Your task to perform on an android device: Open Reddit.com Image 0: 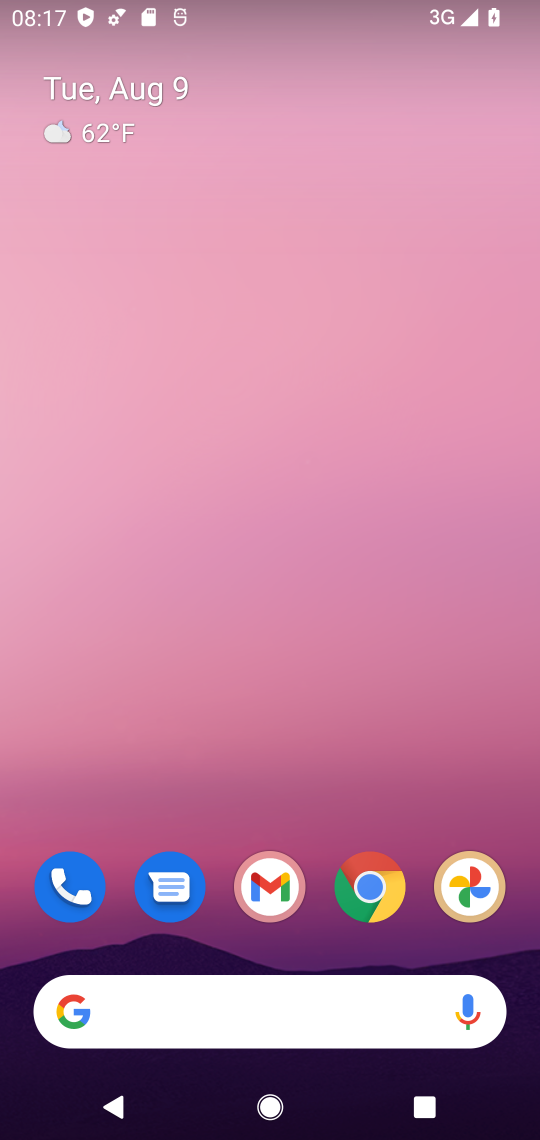
Step 0: click (250, 1012)
Your task to perform on an android device: Open Reddit.com Image 1: 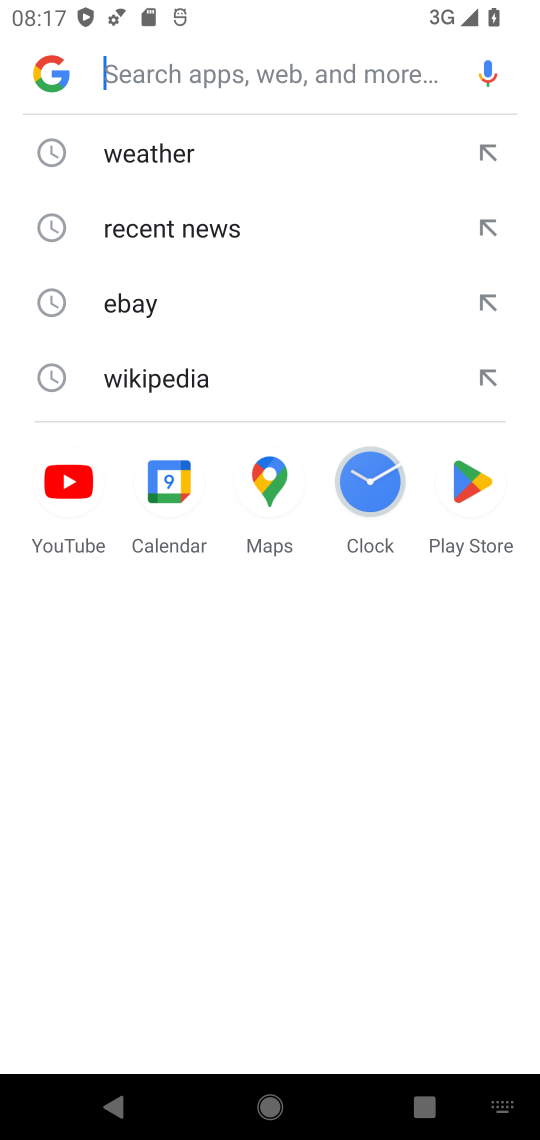
Step 1: type "reddit.com"
Your task to perform on an android device: Open Reddit.com Image 2: 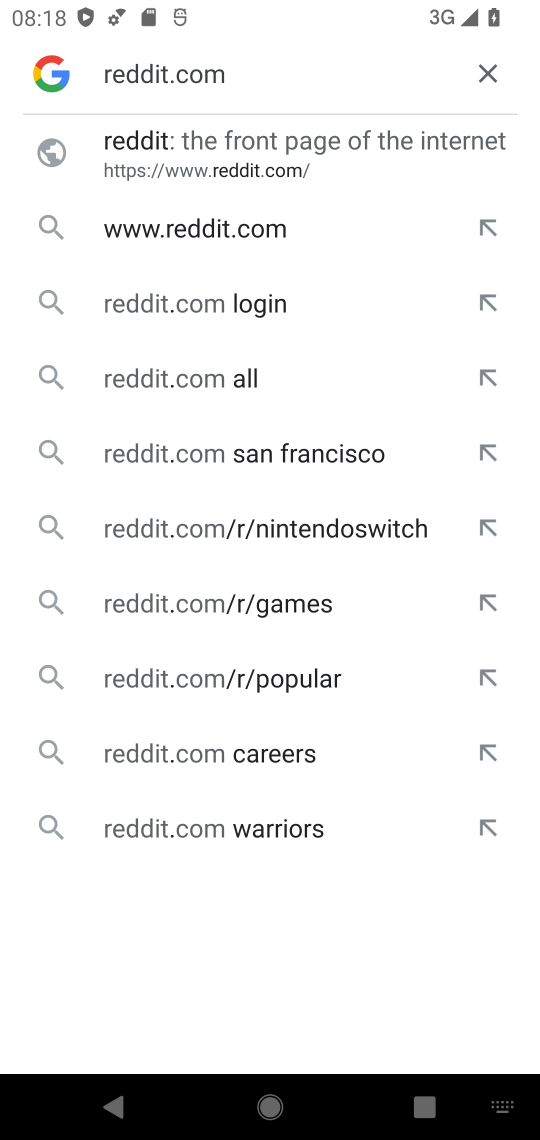
Step 2: click (290, 150)
Your task to perform on an android device: Open Reddit.com Image 3: 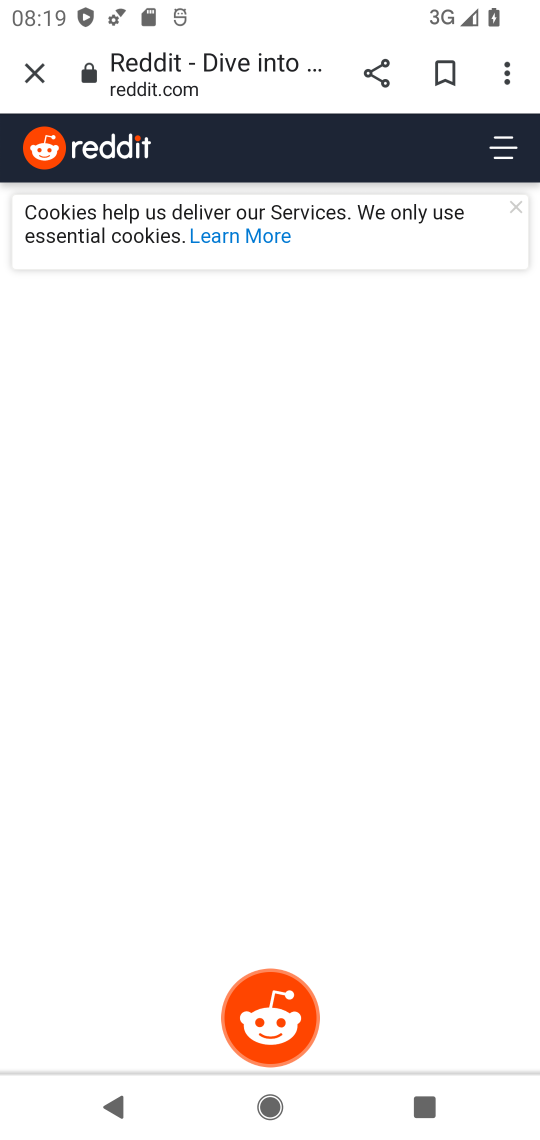
Step 3: task complete